Your task to perform on an android device: Open Yahoo.com Image 0: 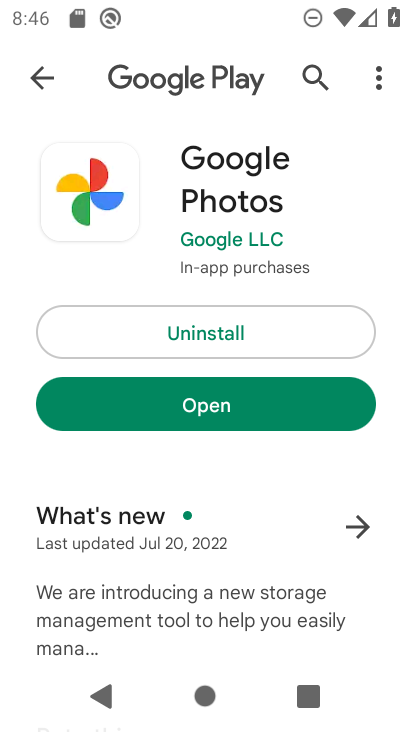
Step 0: press home button
Your task to perform on an android device: Open Yahoo.com Image 1: 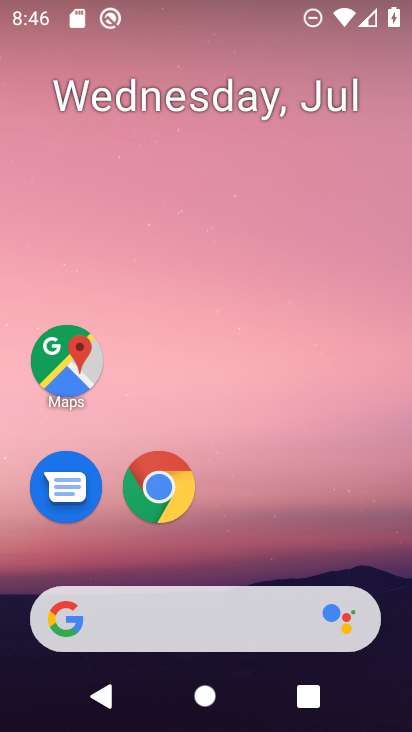
Step 1: drag from (340, 546) to (409, 349)
Your task to perform on an android device: Open Yahoo.com Image 2: 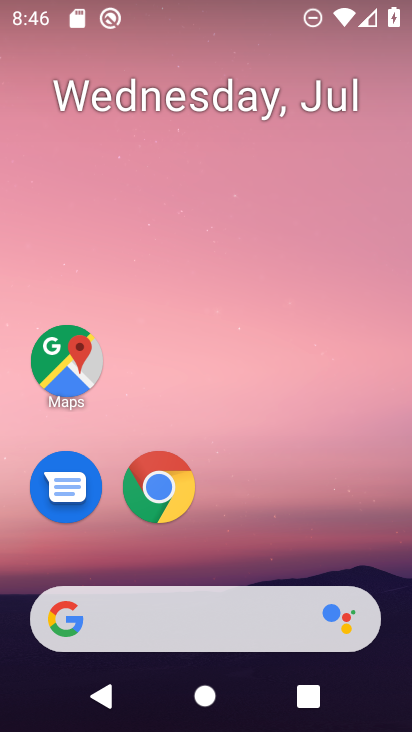
Step 2: drag from (335, 541) to (351, 207)
Your task to perform on an android device: Open Yahoo.com Image 3: 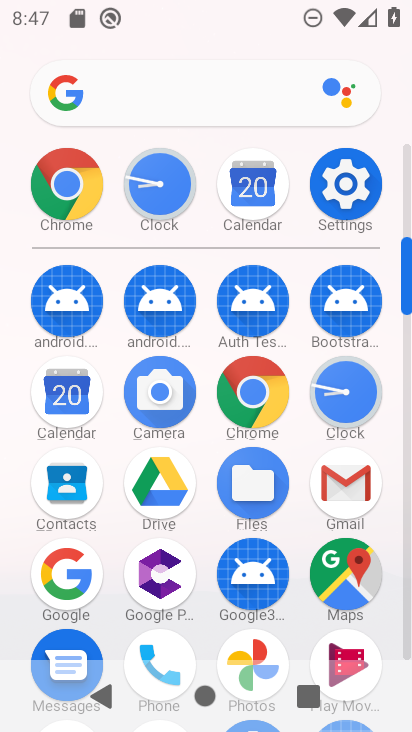
Step 3: click (266, 392)
Your task to perform on an android device: Open Yahoo.com Image 4: 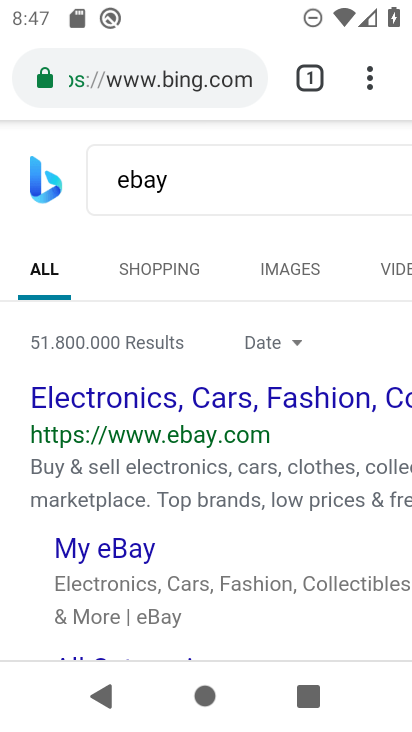
Step 4: click (197, 79)
Your task to perform on an android device: Open Yahoo.com Image 5: 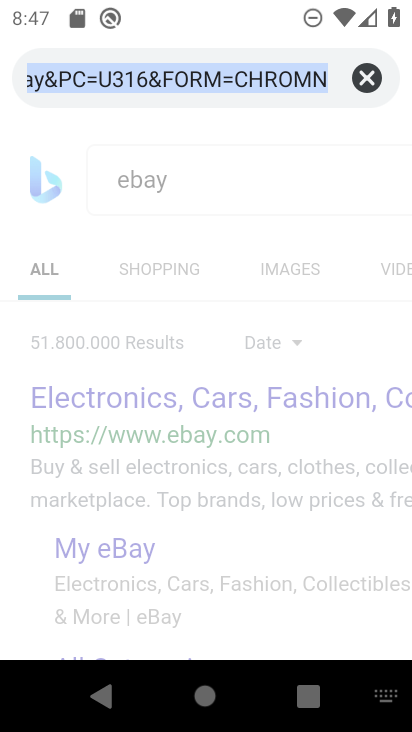
Step 5: type "yahoo.com"
Your task to perform on an android device: Open Yahoo.com Image 6: 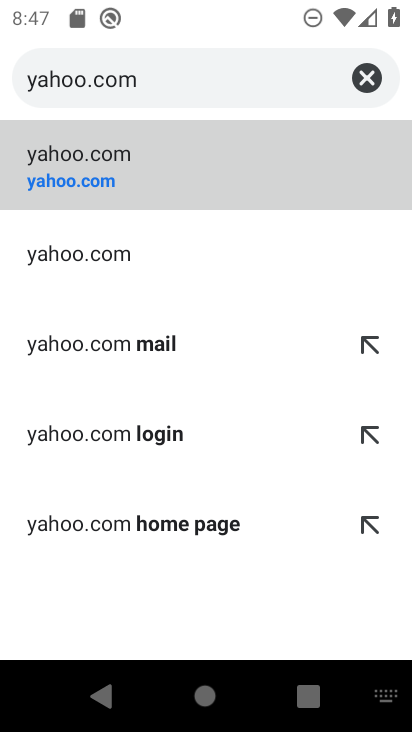
Step 6: click (361, 175)
Your task to perform on an android device: Open Yahoo.com Image 7: 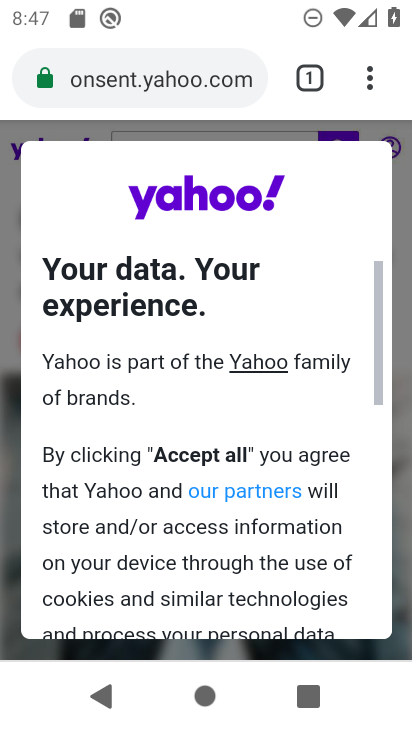
Step 7: task complete